Your task to perform on an android device: delete the emails in spam in the gmail app Image 0: 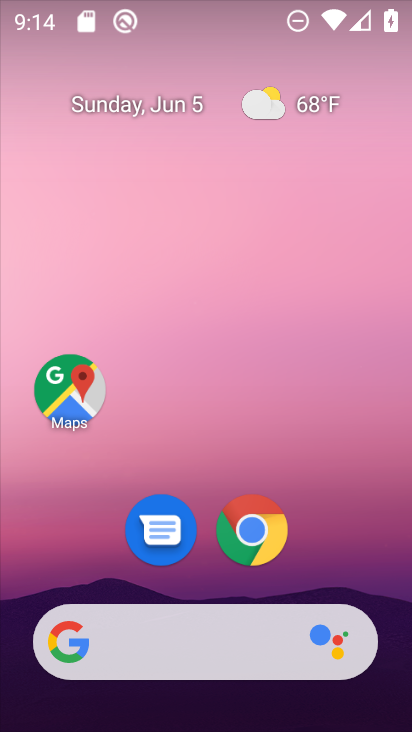
Step 0: drag from (400, 639) to (362, 89)
Your task to perform on an android device: delete the emails in spam in the gmail app Image 1: 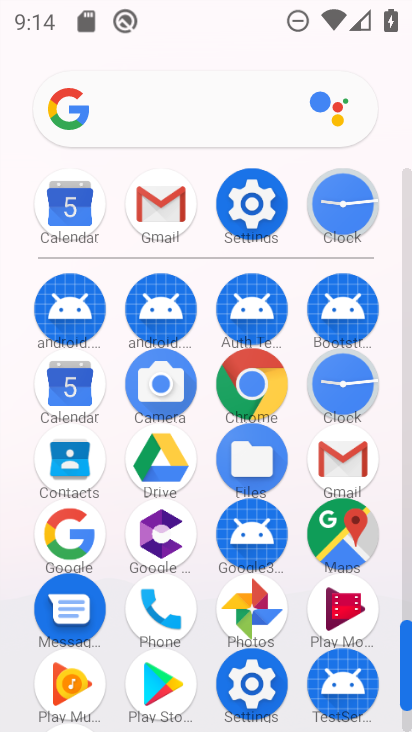
Step 1: click (343, 468)
Your task to perform on an android device: delete the emails in spam in the gmail app Image 2: 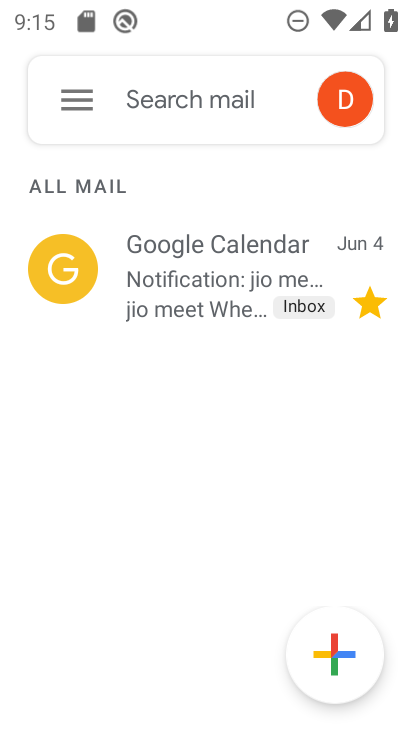
Step 2: drag from (203, 309) to (210, 371)
Your task to perform on an android device: delete the emails in spam in the gmail app Image 3: 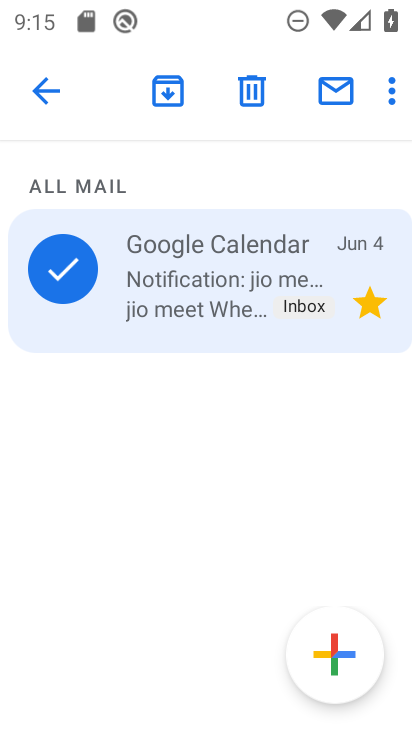
Step 3: press back button
Your task to perform on an android device: delete the emails in spam in the gmail app Image 4: 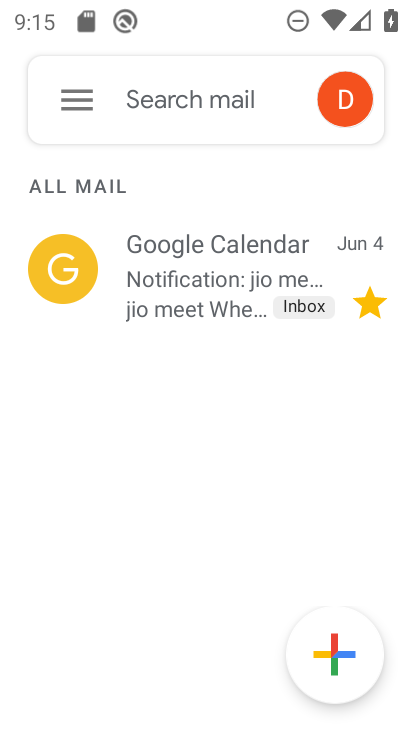
Step 4: click (73, 96)
Your task to perform on an android device: delete the emails in spam in the gmail app Image 5: 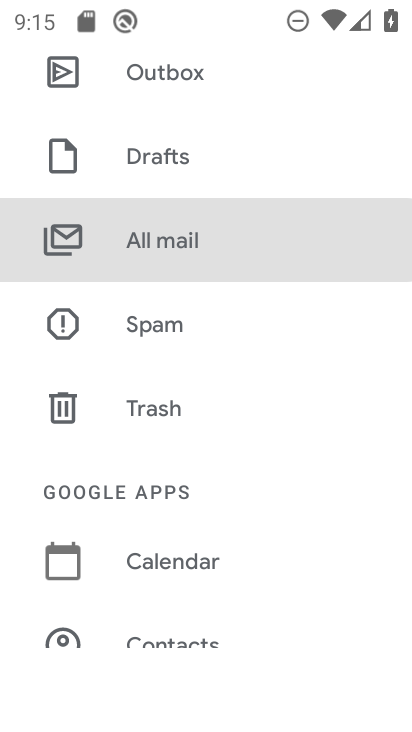
Step 5: click (164, 337)
Your task to perform on an android device: delete the emails in spam in the gmail app Image 6: 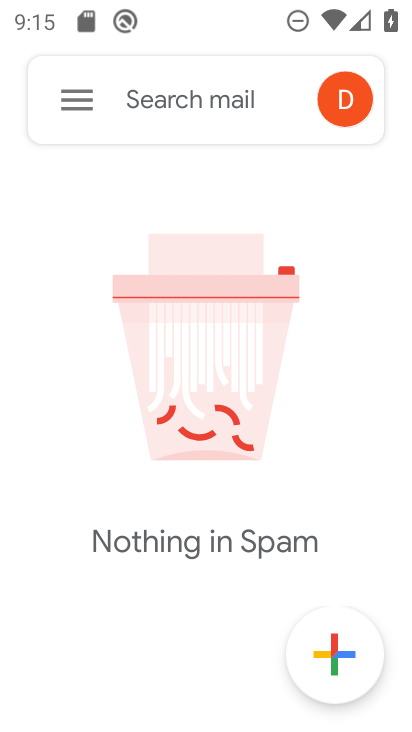
Step 6: task complete